Your task to perform on an android device: Go to CNN.com Image 0: 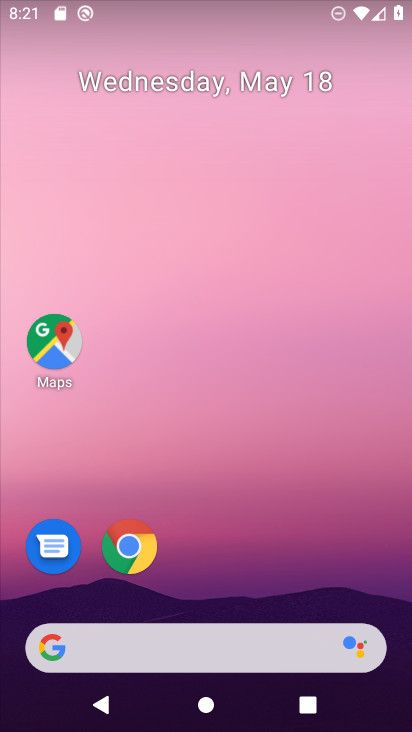
Step 0: drag from (255, 675) to (401, 140)
Your task to perform on an android device: Go to CNN.com Image 1: 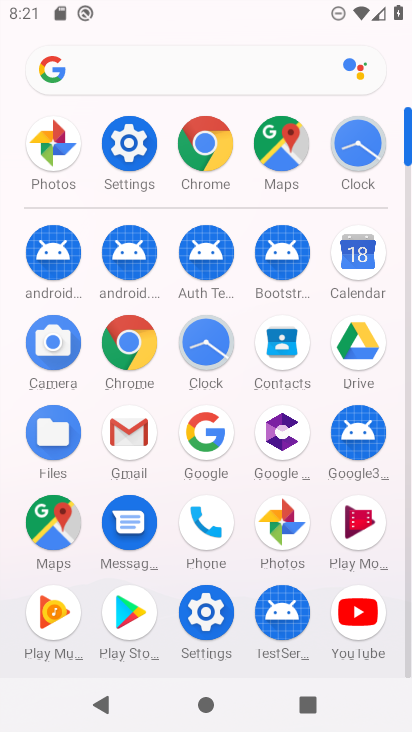
Step 1: click (194, 170)
Your task to perform on an android device: Go to CNN.com Image 2: 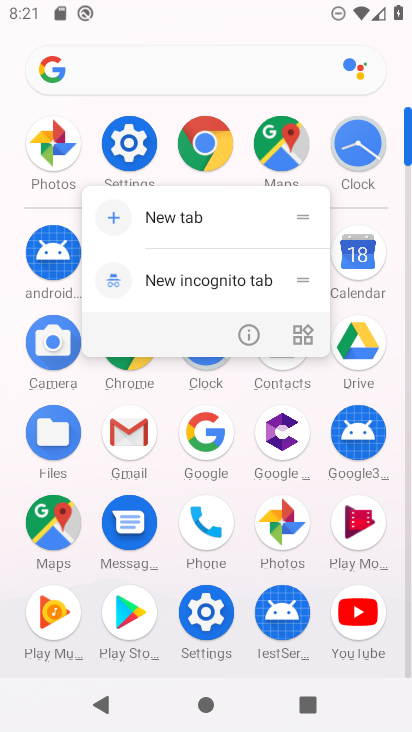
Step 2: click (205, 155)
Your task to perform on an android device: Go to CNN.com Image 3: 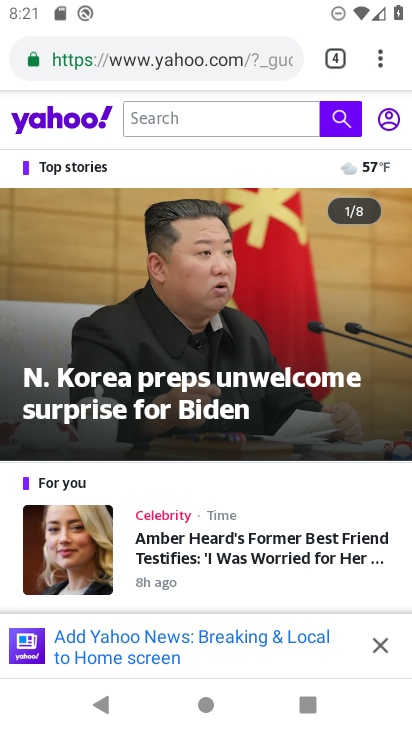
Step 3: click (139, 68)
Your task to perform on an android device: Go to CNN.com Image 4: 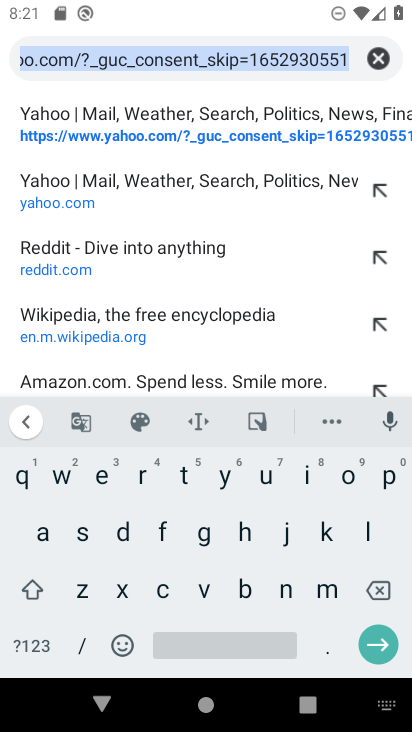
Step 4: click (158, 590)
Your task to perform on an android device: Go to CNN.com Image 5: 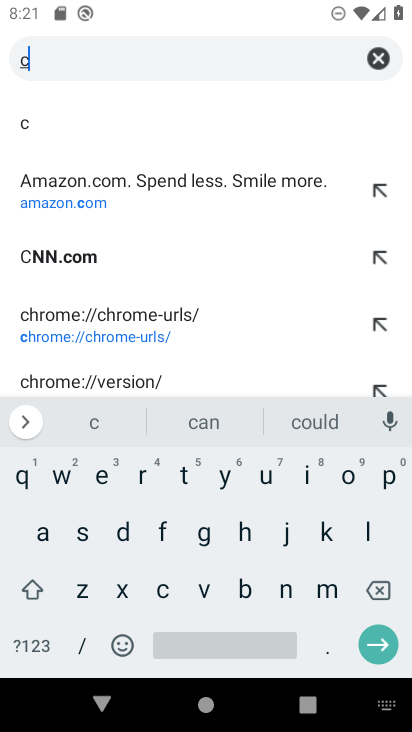
Step 5: click (47, 251)
Your task to perform on an android device: Go to CNN.com Image 6: 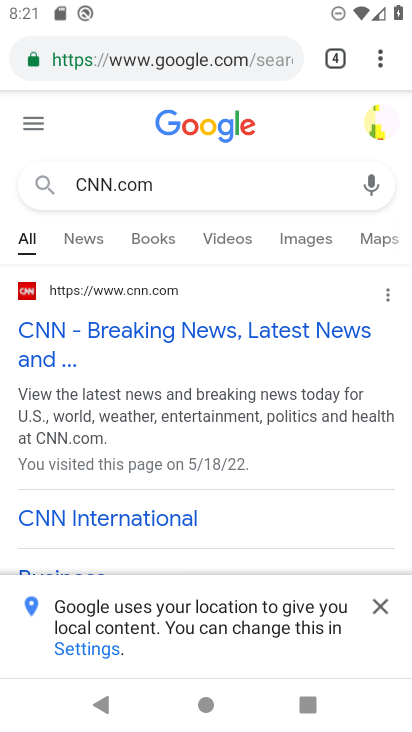
Step 6: click (77, 324)
Your task to perform on an android device: Go to CNN.com Image 7: 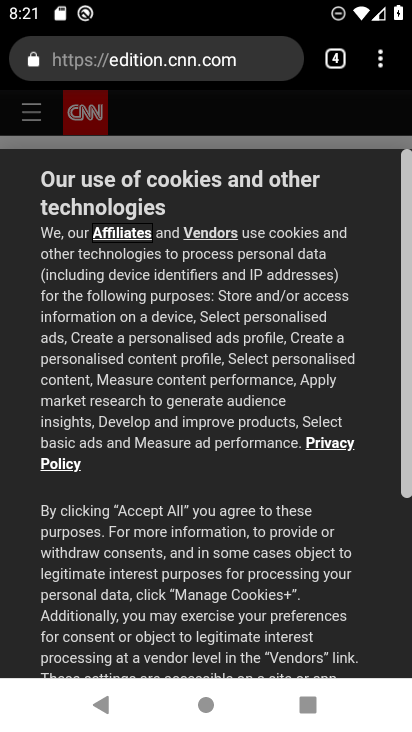
Step 7: drag from (234, 517) to (337, 282)
Your task to perform on an android device: Go to CNN.com Image 8: 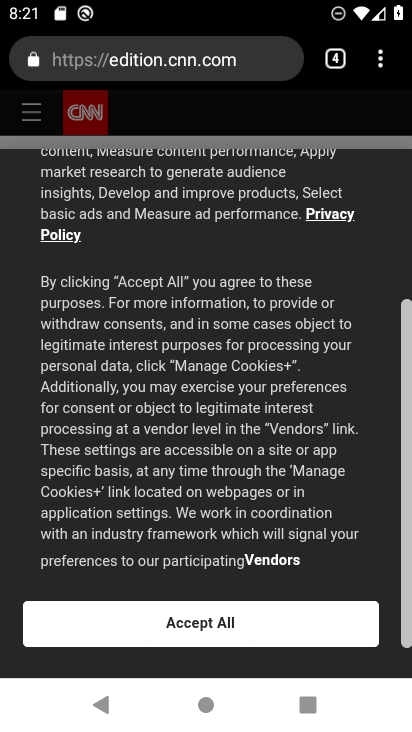
Step 8: click (214, 630)
Your task to perform on an android device: Go to CNN.com Image 9: 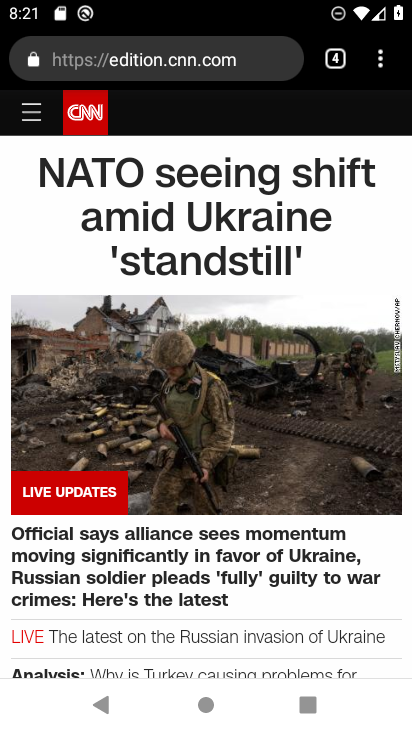
Step 9: task complete